Your task to perform on an android device: toggle translation in the chrome app Image 0: 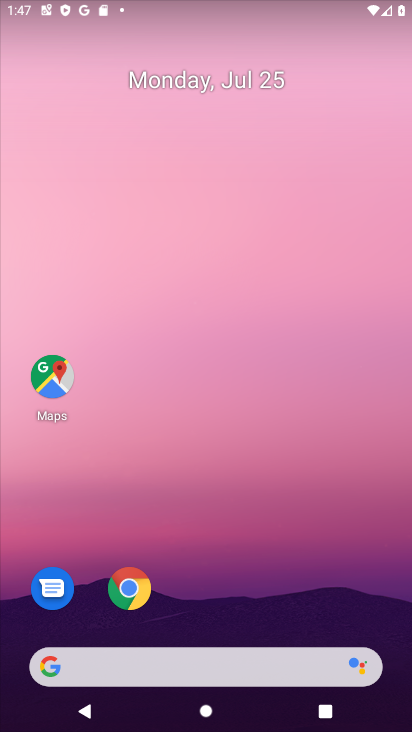
Step 0: click (132, 587)
Your task to perform on an android device: toggle translation in the chrome app Image 1: 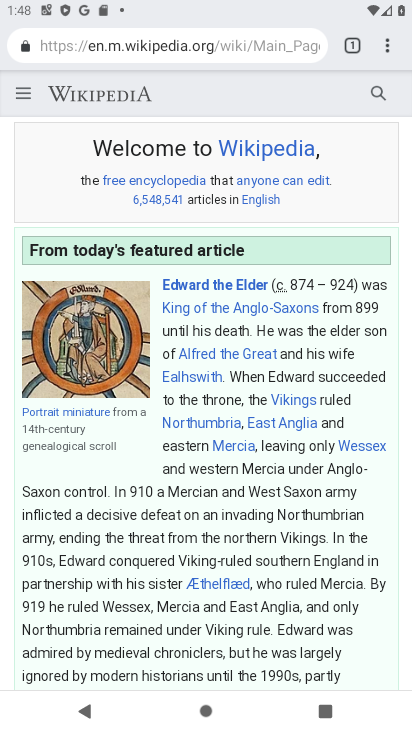
Step 1: click (387, 52)
Your task to perform on an android device: toggle translation in the chrome app Image 2: 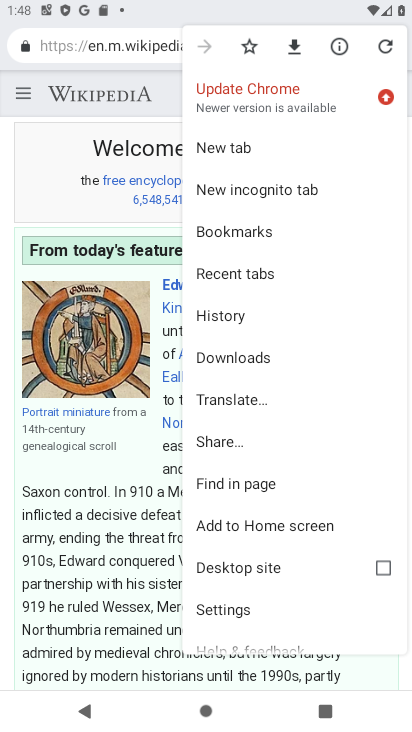
Step 2: click (207, 605)
Your task to perform on an android device: toggle translation in the chrome app Image 3: 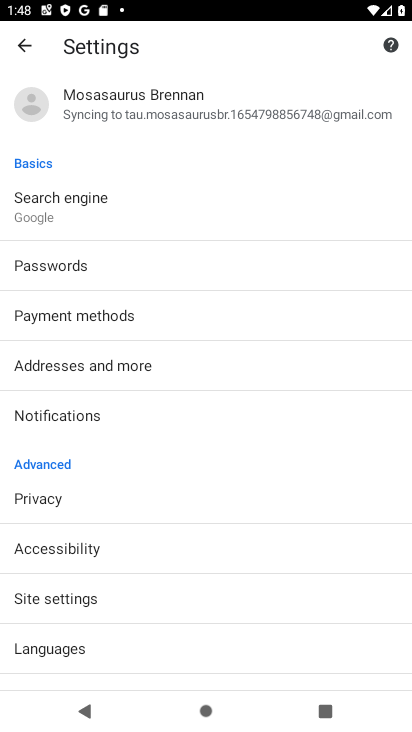
Step 3: click (31, 647)
Your task to perform on an android device: toggle translation in the chrome app Image 4: 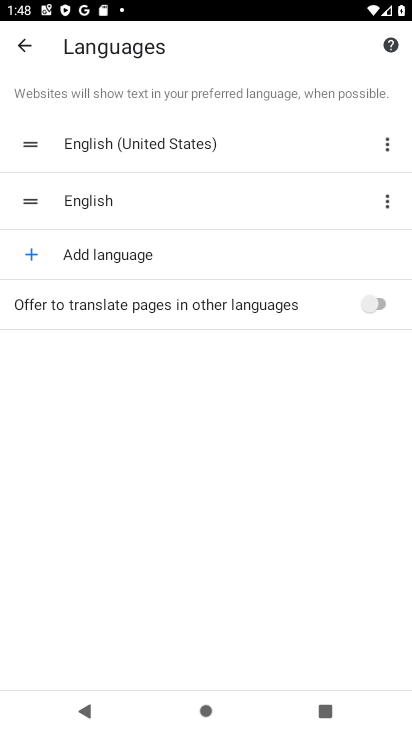
Step 4: click (390, 303)
Your task to perform on an android device: toggle translation in the chrome app Image 5: 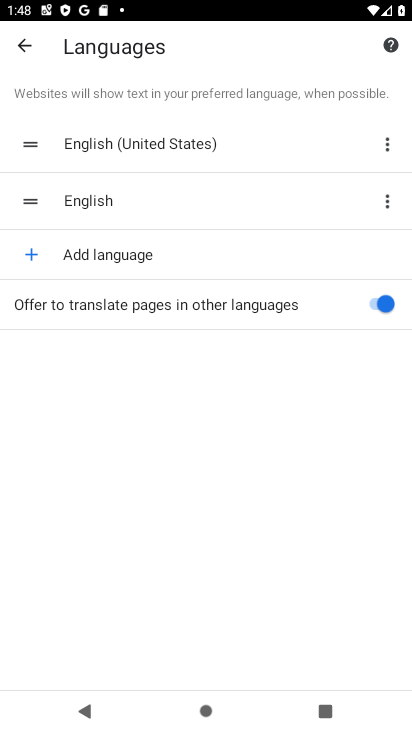
Step 5: task complete